Your task to perform on an android device: Open maps Image 0: 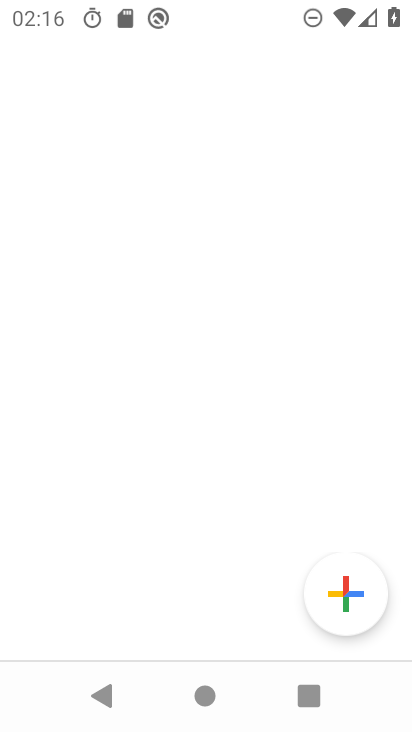
Step 0: drag from (278, 652) to (320, 493)
Your task to perform on an android device: Open maps Image 1: 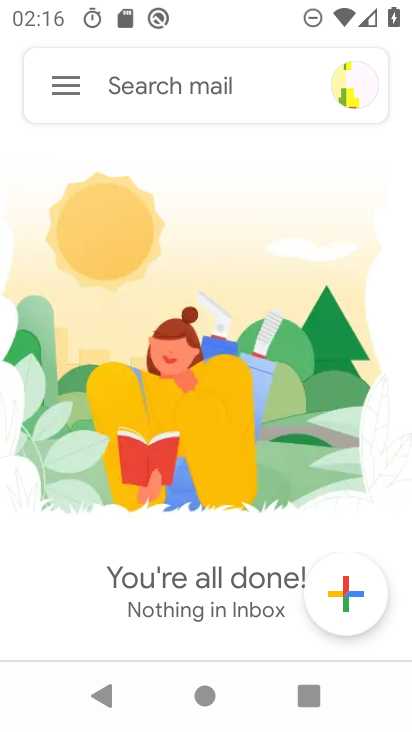
Step 1: press home button
Your task to perform on an android device: Open maps Image 2: 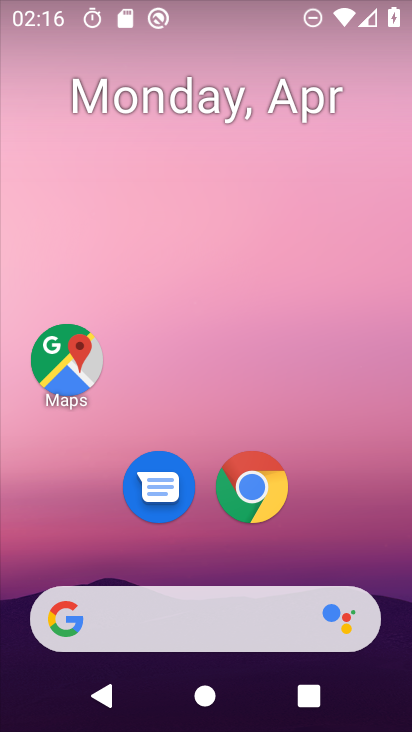
Step 2: drag from (260, 607) to (251, 156)
Your task to perform on an android device: Open maps Image 3: 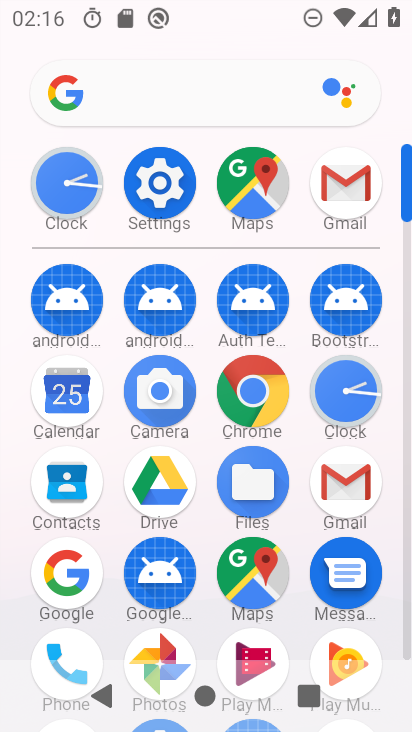
Step 3: click (255, 168)
Your task to perform on an android device: Open maps Image 4: 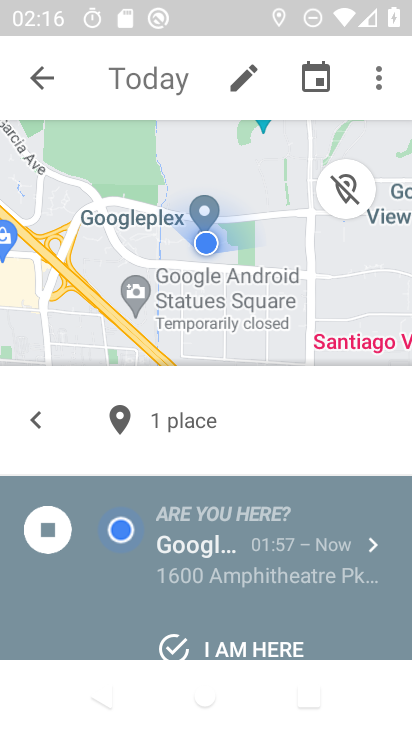
Step 4: click (47, 84)
Your task to perform on an android device: Open maps Image 5: 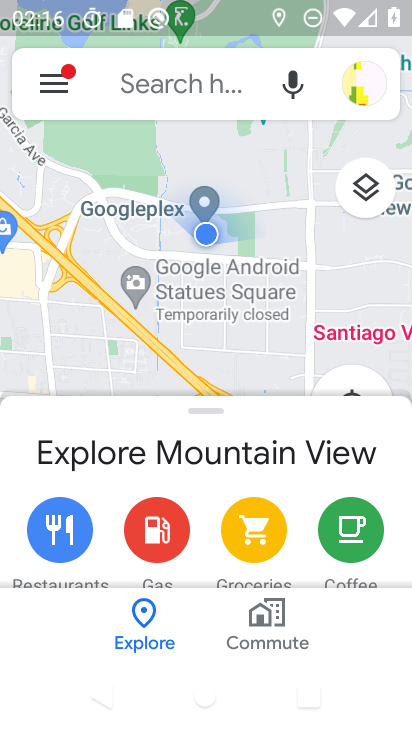
Step 5: click (363, 384)
Your task to perform on an android device: Open maps Image 6: 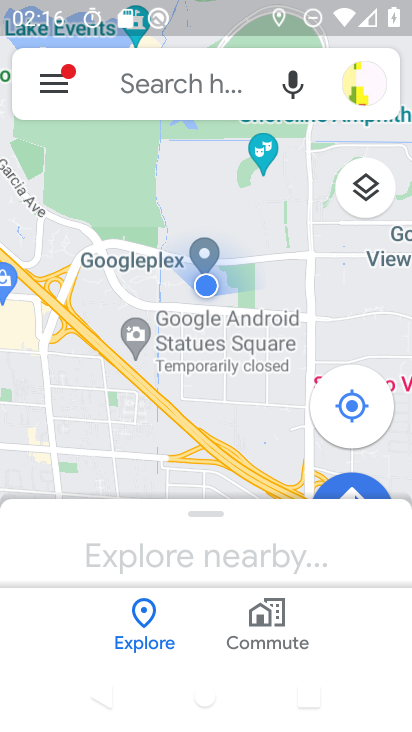
Step 6: task complete